Your task to perform on an android device: turn off priority inbox in the gmail app Image 0: 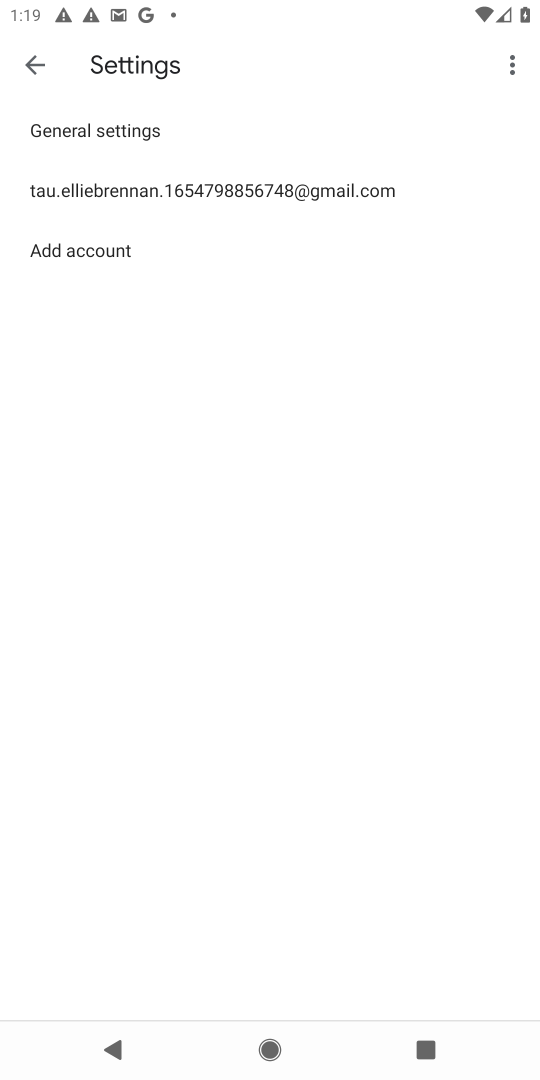
Step 0: click (141, 187)
Your task to perform on an android device: turn off priority inbox in the gmail app Image 1: 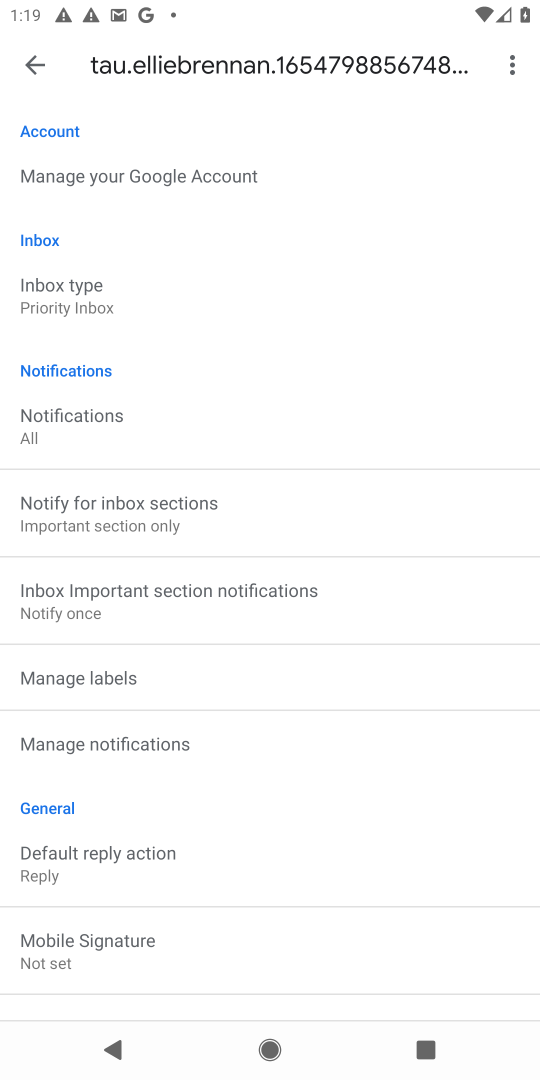
Step 1: click (78, 290)
Your task to perform on an android device: turn off priority inbox in the gmail app Image 2: 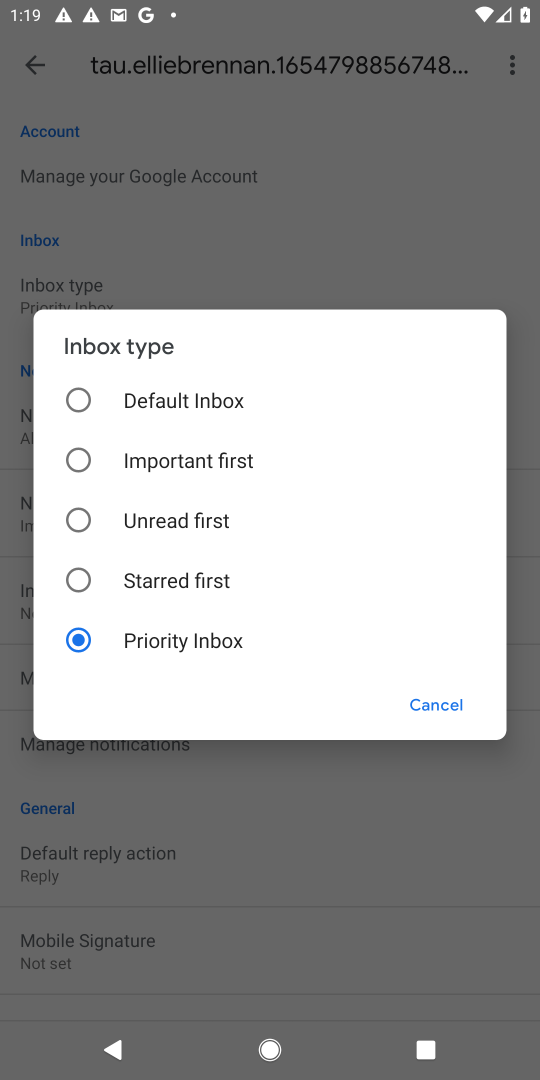
Step 2: click (84, 577)
Your task to perform on an android device: turn off priority inbox in the gmail app Image 3: 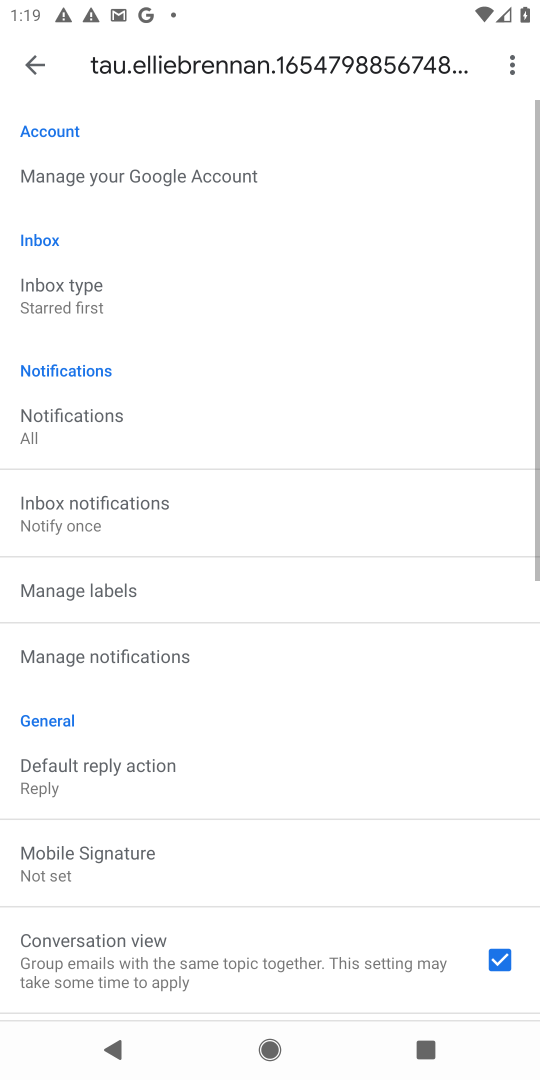
Step 3: task complete